Your task to perform on an android device: see tabs open on other devices in the chrome app Image 0: 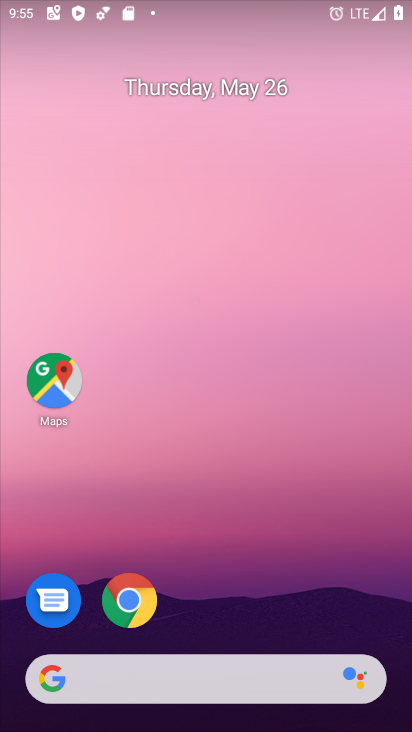
Step 0: drag from (245, 625) to (250, 126)
Your task to perform on an android device: see tabs open on other devices in the chrome app Image 1: 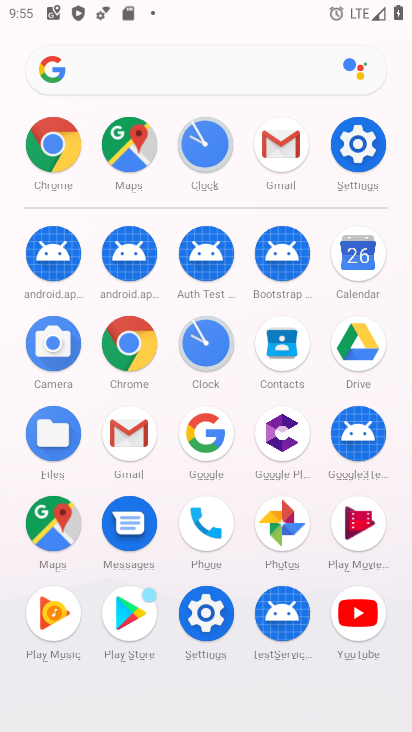
Step 1: click (127, 342)
Your task to perform on an android device: see tabs open on other devices in the chrome app Image 2: 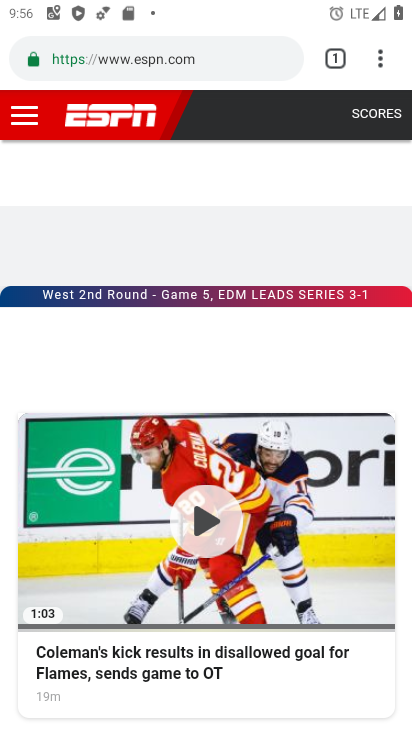
Step 2: click (383, 50)
Your task to perform on an android device: see tabs open on other devices in the chrome app Image 3: 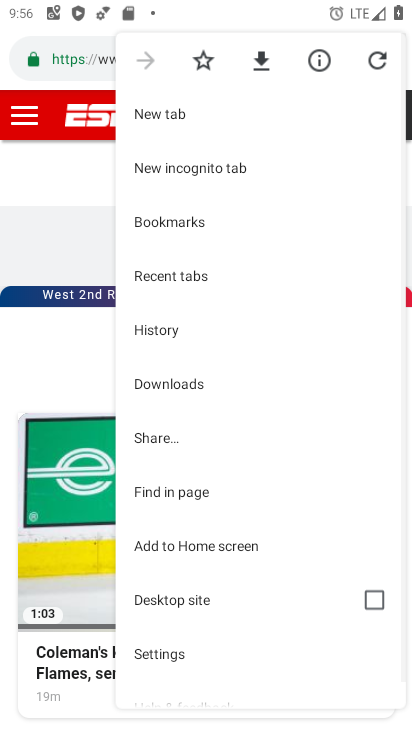
Step 3: click (189, 652)
Your task to perform on an android device: see tabs open on other devices in the chrome app Image 4: 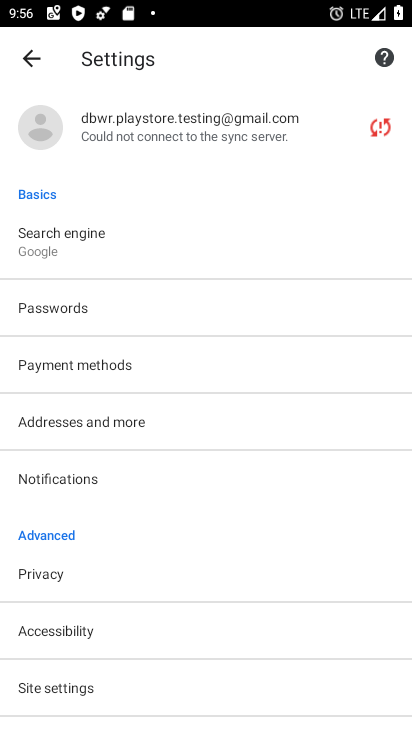
Step 4: click (34, 60)
Your task to perform on an android device: see tabs open on other devices in the chrome app Image 5: 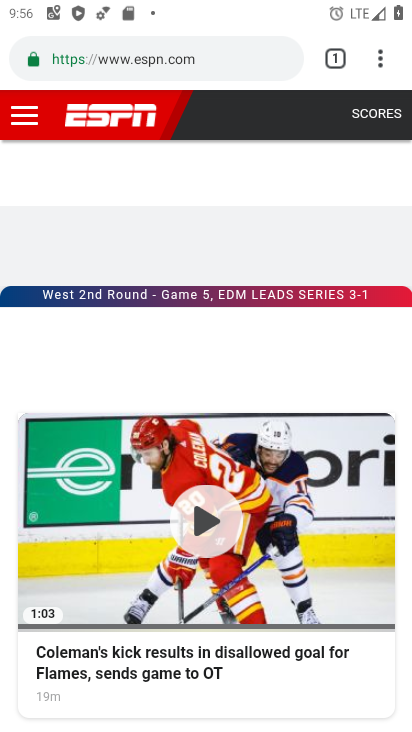
Step 5: task complete